Your task to perform on an android device: turn off location history Image 0: 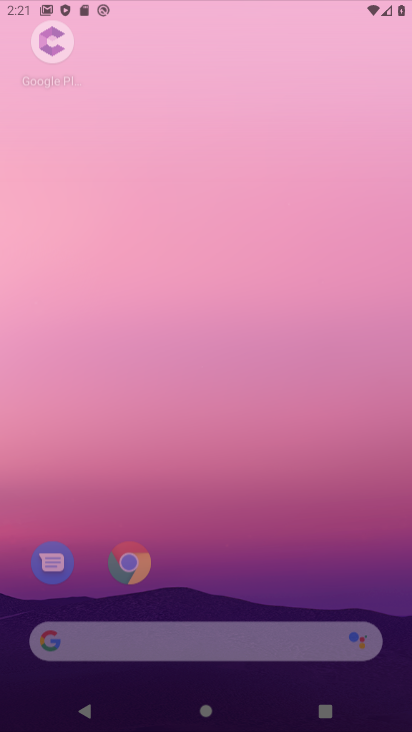
Step 0: drag from (221, 512) to (313, 6)
Your task to perform on an android device: turn off location history Image 1: 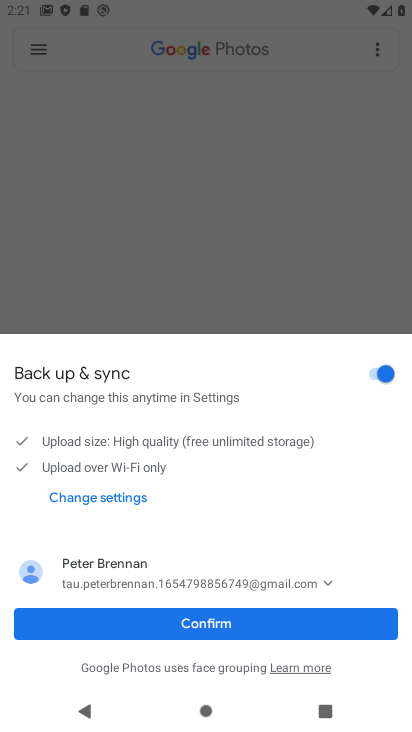
Step 1: press home button
Your task to perform on an android device: turn off location history Image 2: 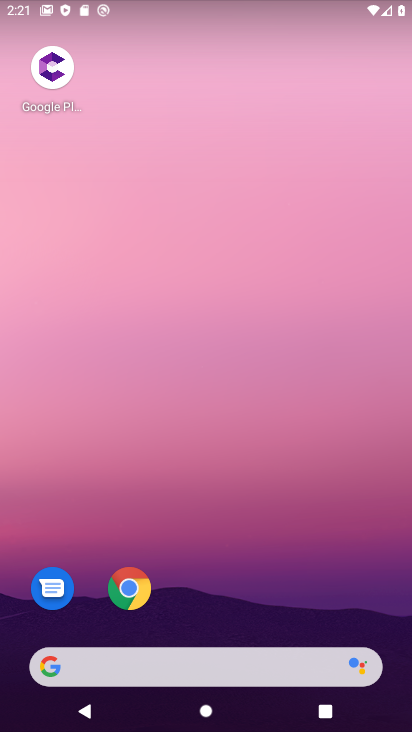
Step 2: drag from (232, 646) to (159, 183)
Your task to perform on an android device: turn off location history Image 3: 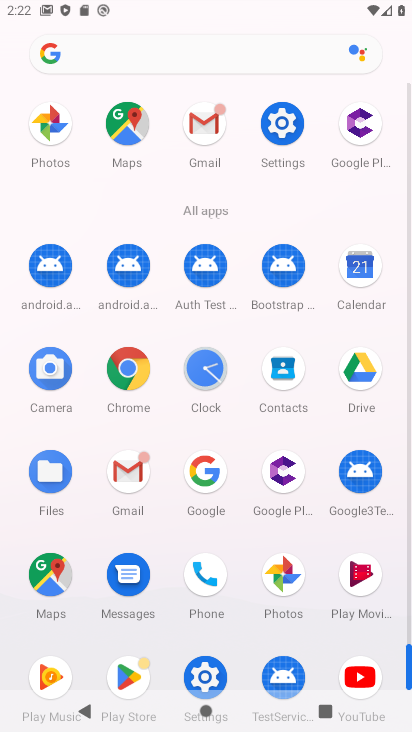
Step 3: click (292, 158)
Your task to perform on an android device: turn off location history Image 4: 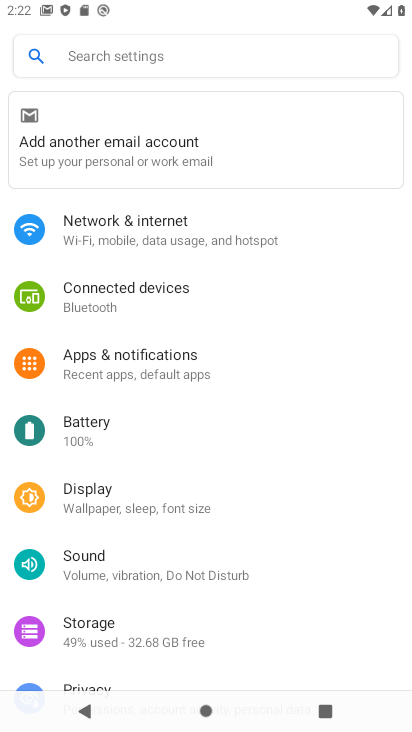
Step 4: drag from (154, 518) to (164, 309)
Your task to perform on an android device: turn off location history Image 5: 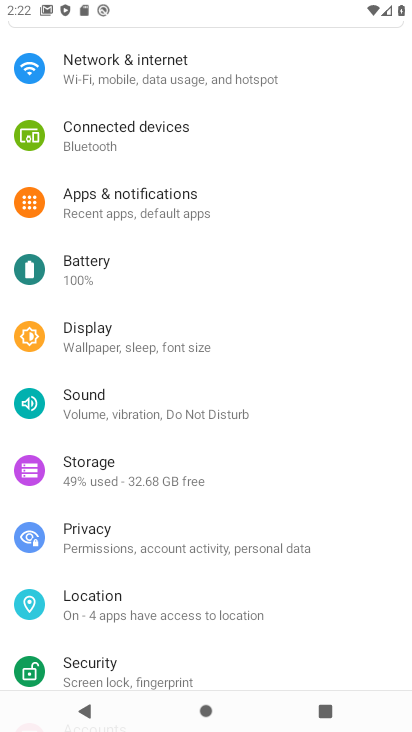
Step 5: click (145, 621)
Your task to perform on an android device: turn off location history Image 6: 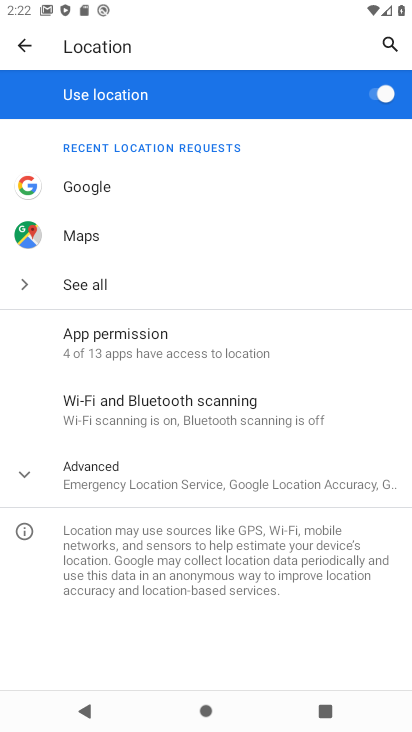
Step 6: click (167, 481)
Your task to perform on an android device: turn off location history Image 7: 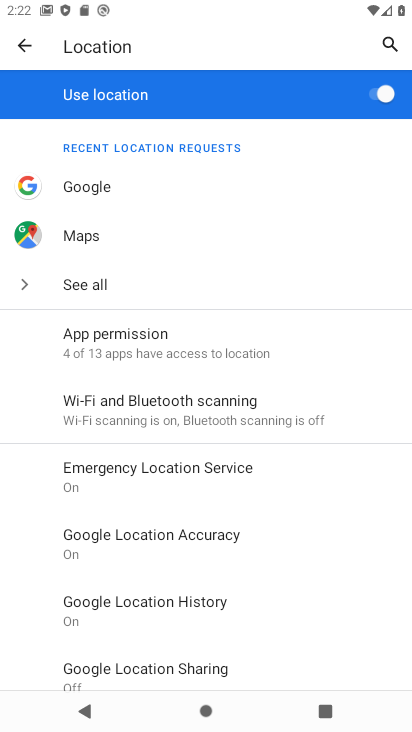
Step 7: click (167, 626)
Your task to perform on an android device: turn off location history Image 8: 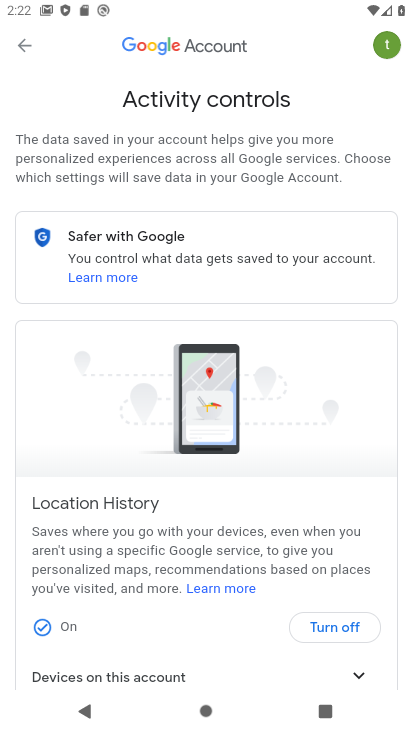
Step 8: click (326, 629)
Your task to perform on an android device: turn off location history Image 9: 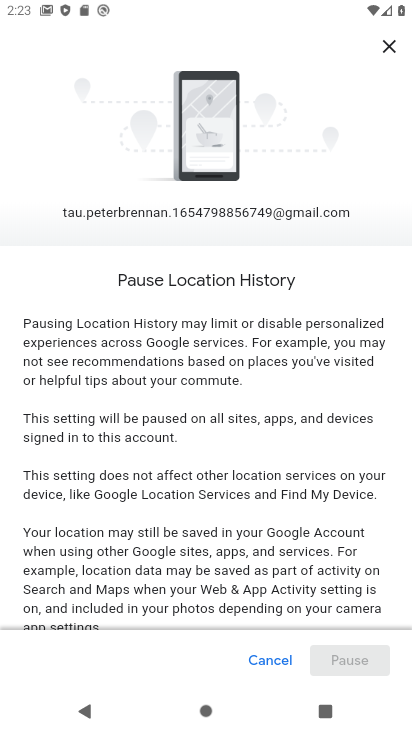
Step 9: drag from (301, 476) to (289, 51)
Your task to perform on an android device: turn off location history Image 10: 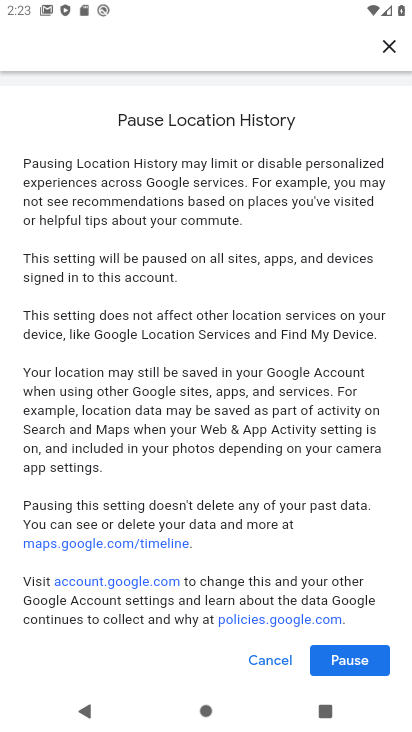
Step 10: click (351, 662)
Your task to perform on an android device: turn off location history Image 11: 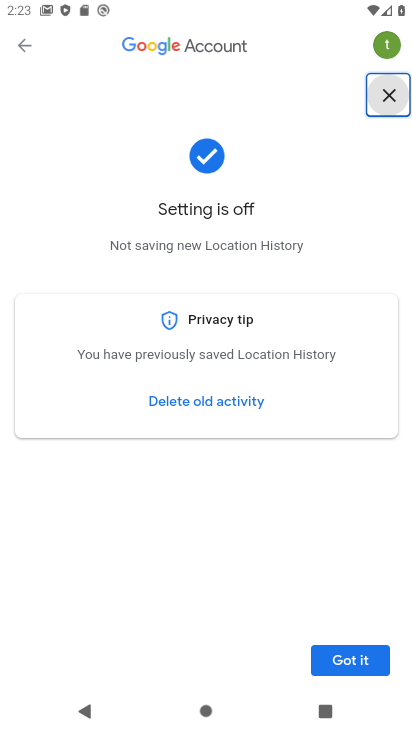
Step 11: click (350, 657)
Your task to perform on an android device: turn off location history Image 12: 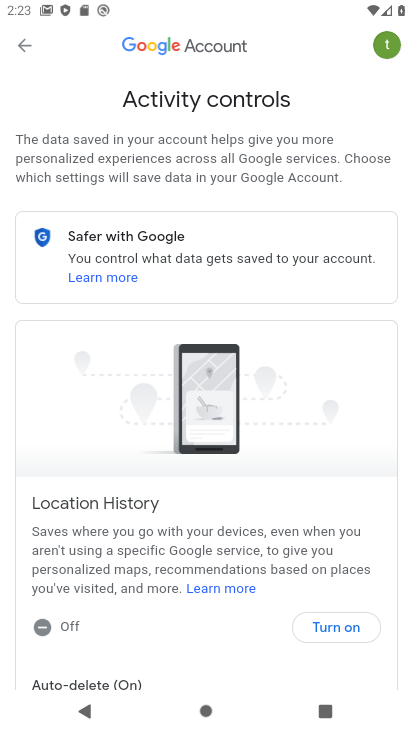
Step 12: task complete